Your task to perform on an android device: install app "Spotify" Image 0: 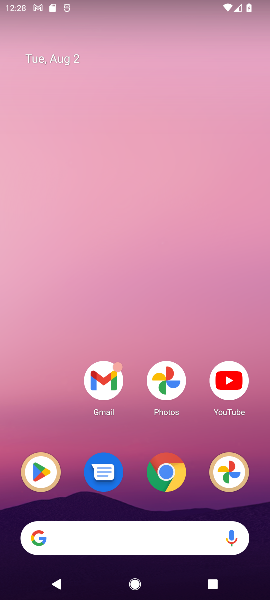
Step 0: click (28, 482)
Your task to perform on an android device: install app "Spotify" Image 1: 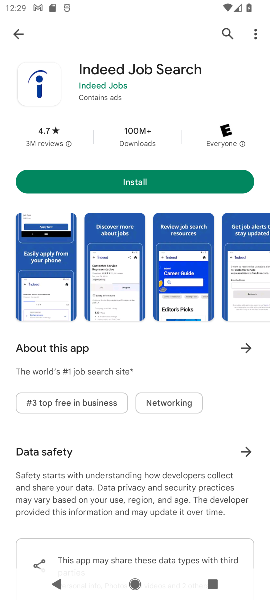
Step 1: click (224, 40)
Your task to perform on an android device: install app "Spotify" Image 2: 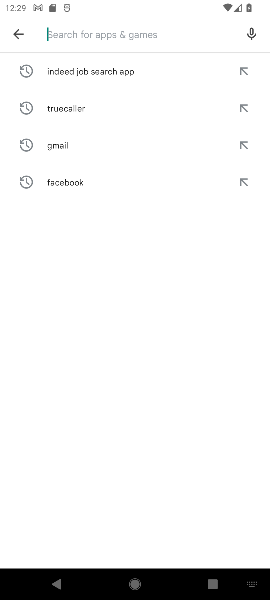
Step 2: type "spotify"
Your task to perform on an android device: install app "Spotify" Image 3: 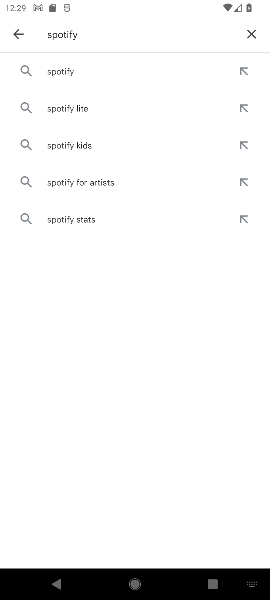
Step 3: click (112, 74)
Your task to perform on an android device: install app "Spotify" Image 4: 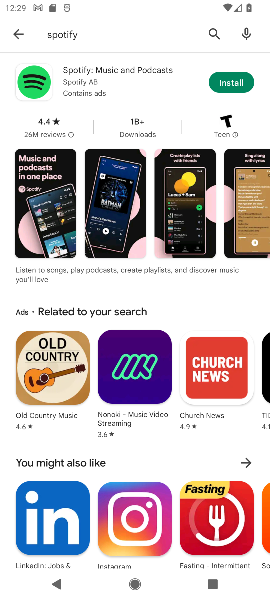
Step 4: click (124, 68)
Your task to perform on an android device: install app "Spotify" Image 5: 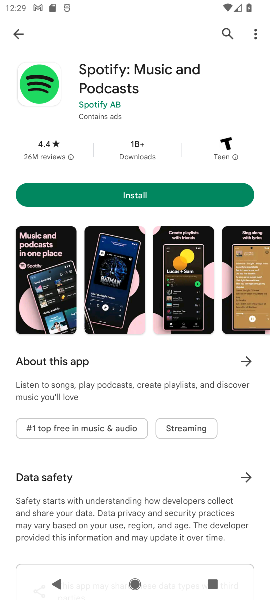
Step 5: click (190, 195)
Your task to perform on an android device: install app "Spotify" Image 6: 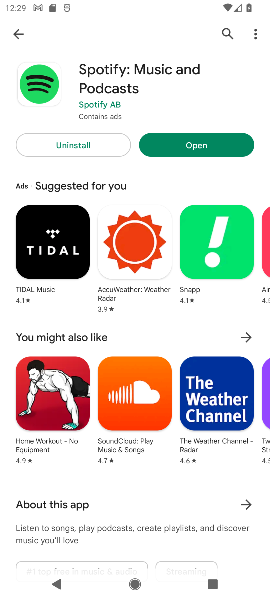
Step 6: task complete